Your task to perform on an android device: See recent photos Image 0: 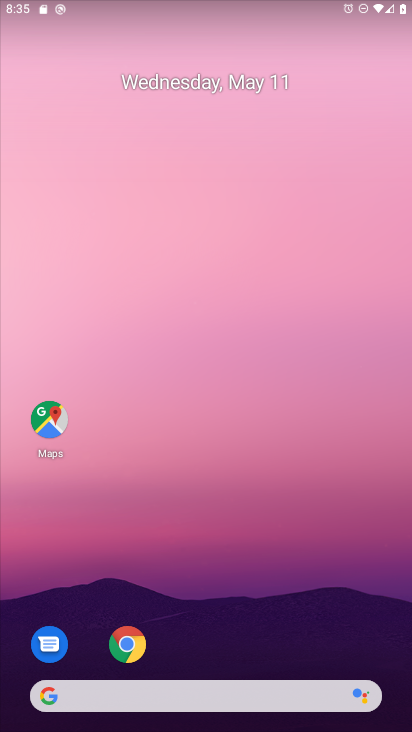
Step 0: drag from (228, 562) to (81, 61)
Your task to perform on an android device: See recent photos Image 1: 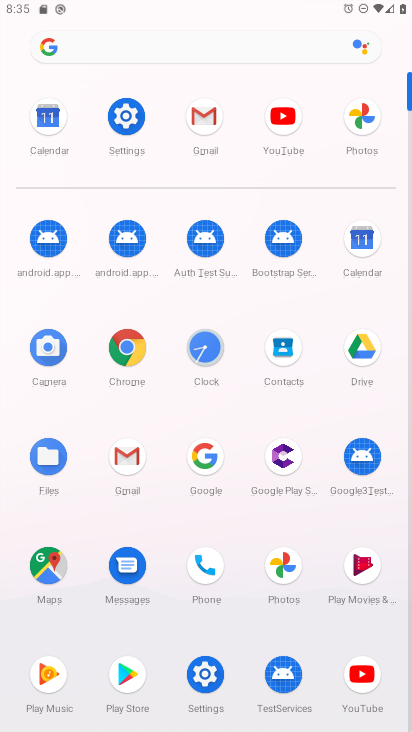
Step 1: click (366, 118)
Your task to perform on an android device: See recent photos Image 2: 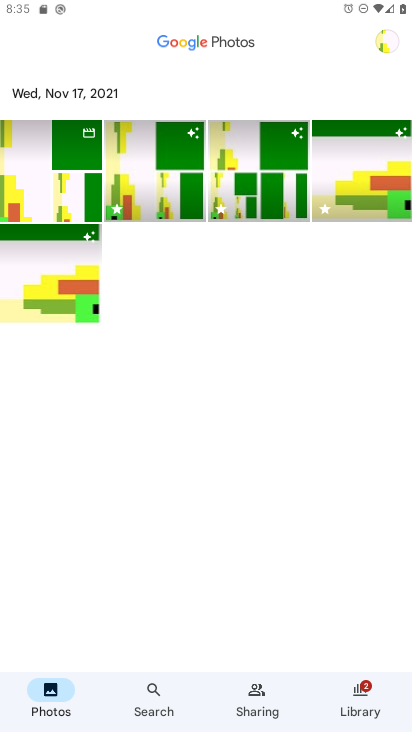
Step 2: task complete